Your task to perform on an android device: Open Youtube and go to the subscriptions tab Image 0: 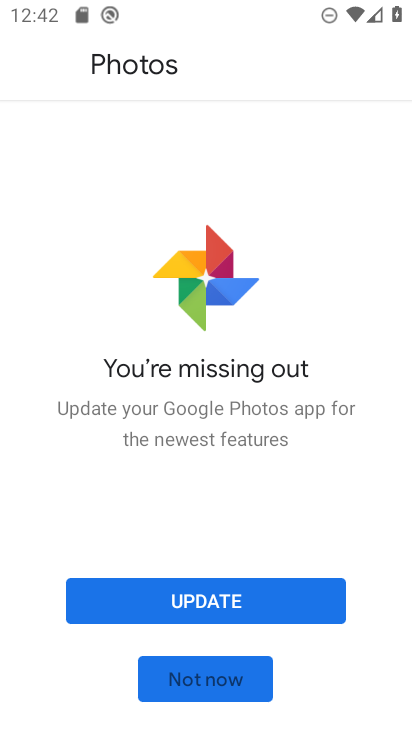
Step 0: press back button
Your task to perform on an android device: Open Youtube and go to the subscriptions tab Image 1: 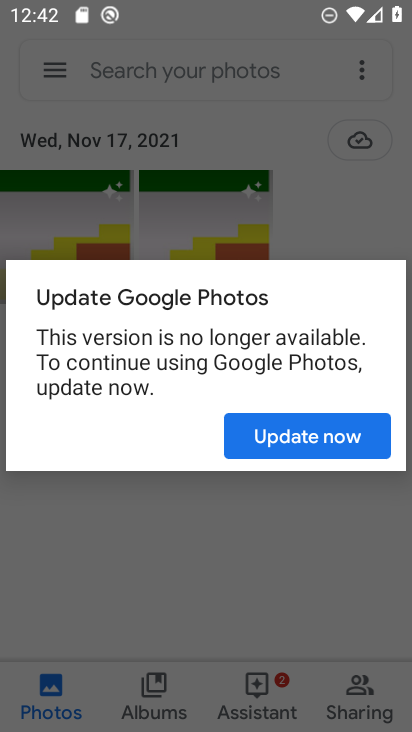
Step 1: press home button
Your task to perform on an android device: Open Youtube and go to the subscriptions tab Image 2: 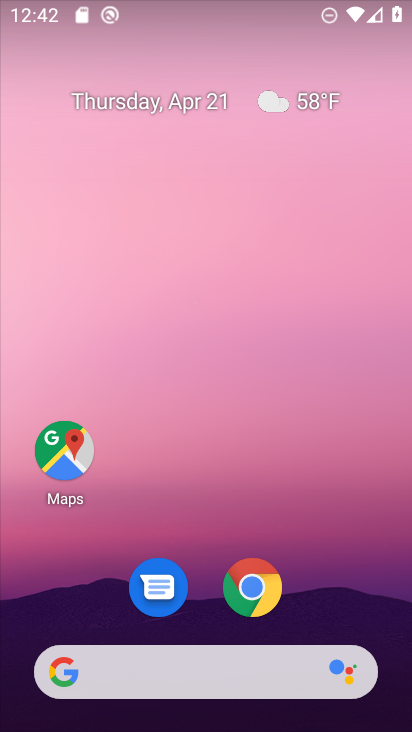
Step 2: drag from (230, 616) to (282, 6)
Your task to perform on an android device: Open Youtube and go to the subscriptions tab Image 3: 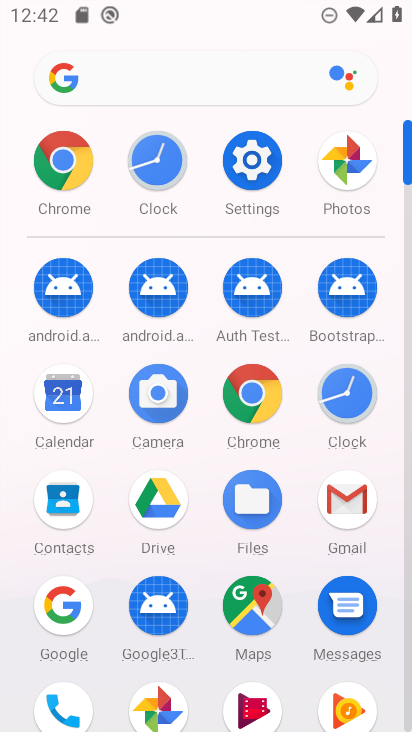
Step 3: drag from (217, 577) to (259, 140)
Your task to perform on an android device: Open Youtube and go to the subscriptions tab Image 4: 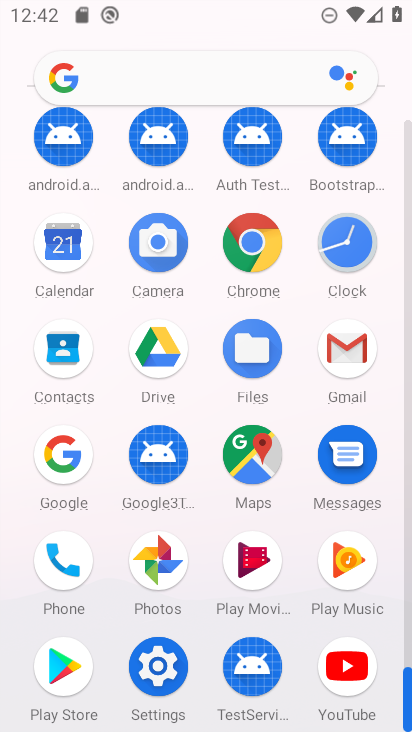
Step 4: click (347, 683)
Your task to perform on an android device: Open Youtube and go to the subscriptions tab Image 5: 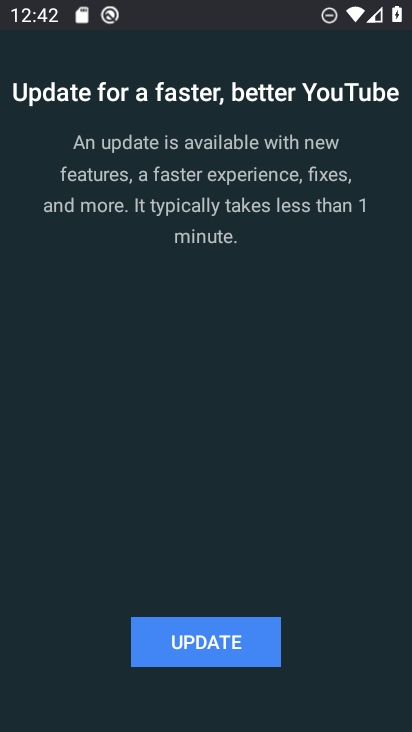
Step 5: click (215, 626)
Your task to perform on an android device: Open Youtube and go to the subscriptions tab Image 6: 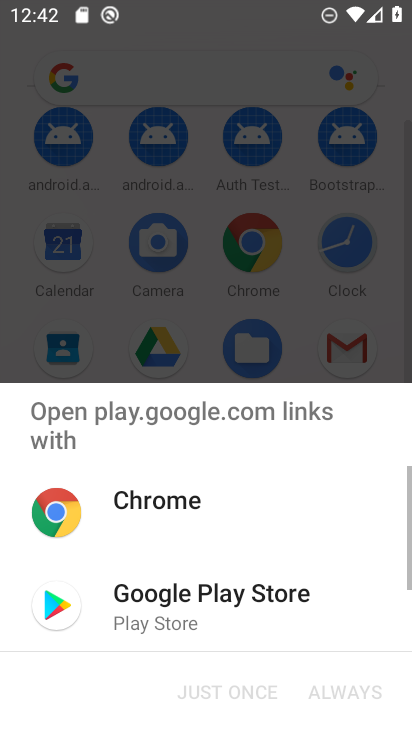
Step 6: click (156, 617)
Your task to perform on an android device: Open Youtube and go to the subscriptions tab Image 7: 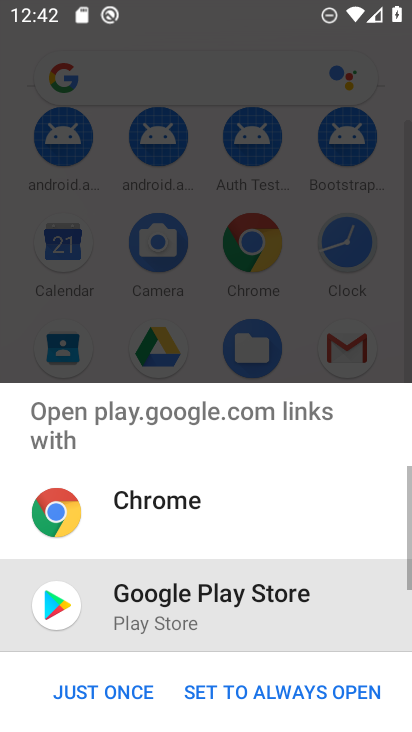
Step 7: click (121, 695)
Your task to perform on an android device: Open Youtube and go to the subscriptions tab Image 8: 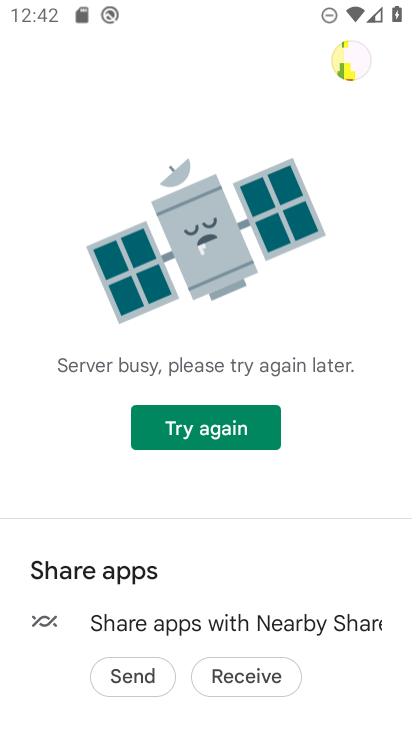
Step 8: click (224, 422)
Your task to perform on an android device: Open Youtube and go to the subscriptions tab Image 9: 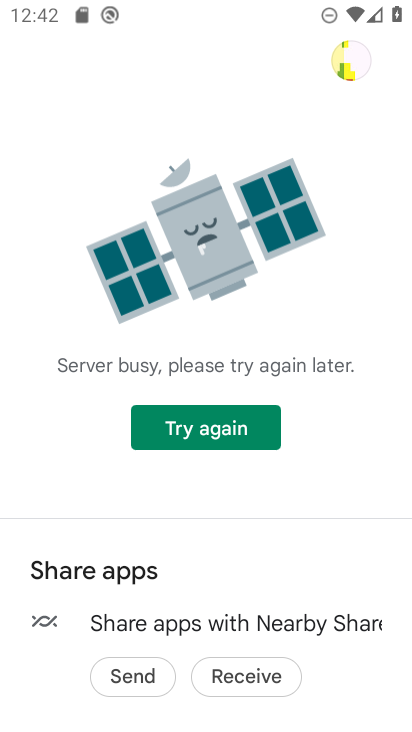
Step 9: task complete